Your task to perform on an android device: Go to ESPN.com Image 0: 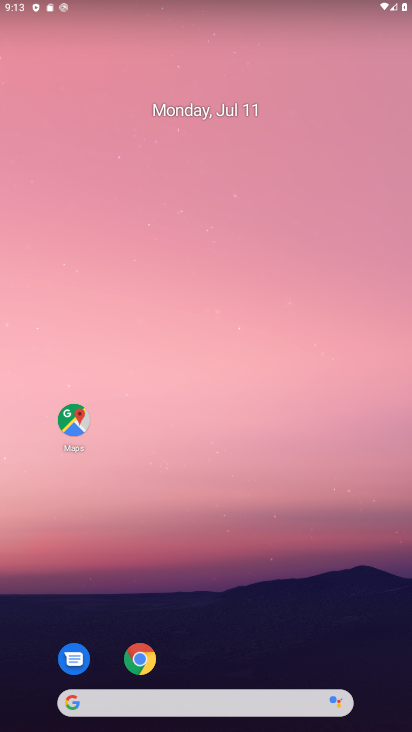
Step 0: click (138, 659)
Your task to perform on an android device: Go to ESPN.com Image 1: 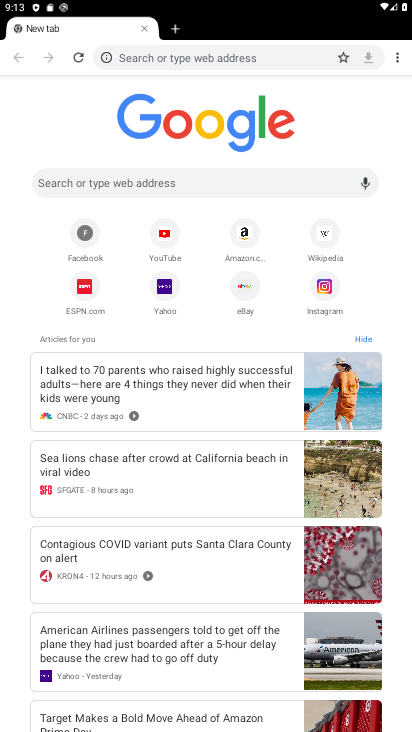
Step 1: click (91, 284)
Your task to perform on an android device: Go to ESPN.com Image 2: 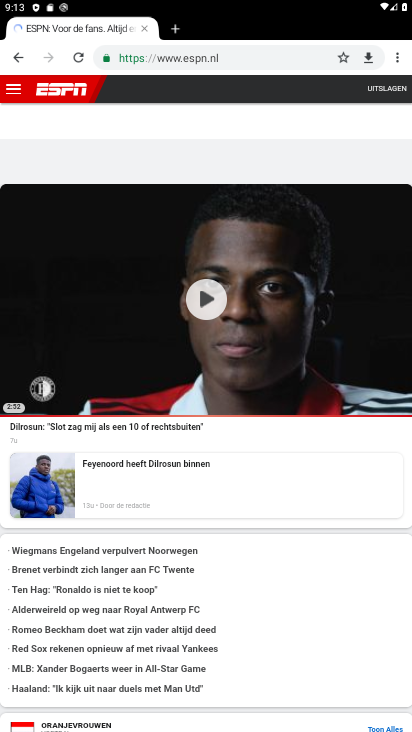
Step 2: task complete